Your task to perform on an android device: turn off wifi Image 0: 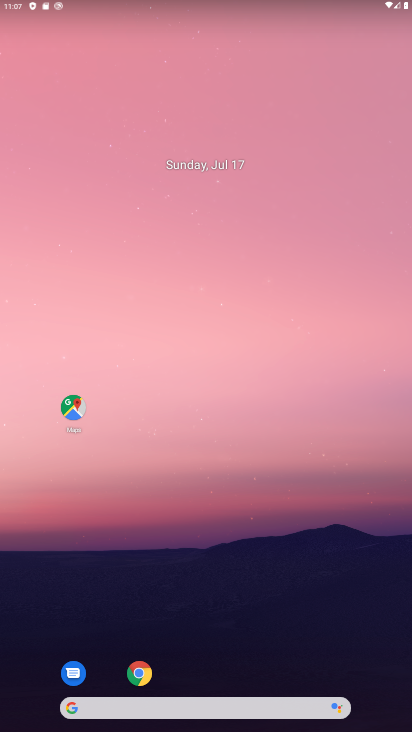
Step 0: drag from (269, 573) to (184, 128)
Your task to perform on an android device: turn off wifi Image 1: 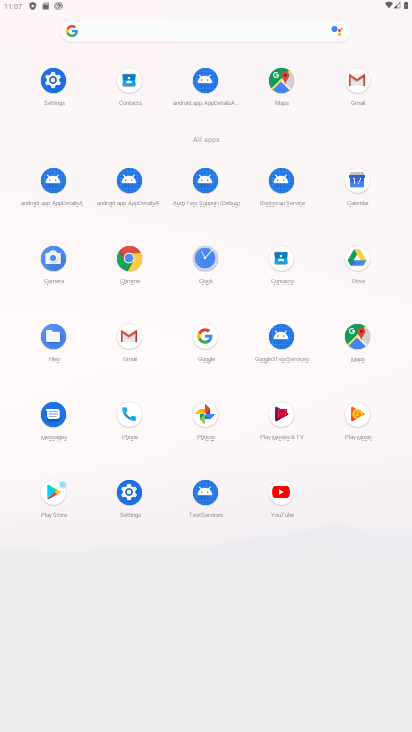
Step 1: click (47, 80)
Your task to perform on an android device: turn off wifi Image 2: 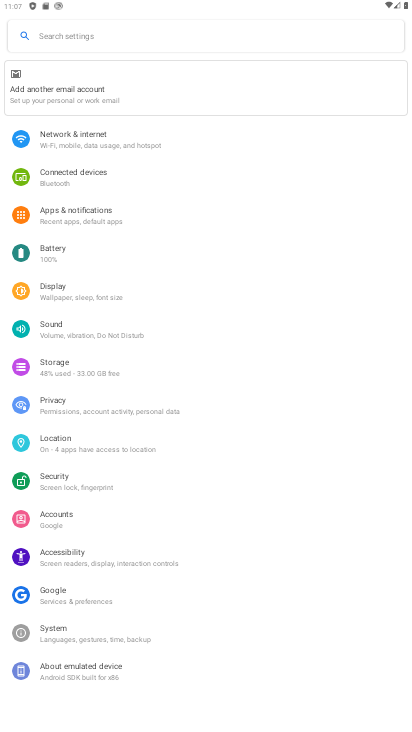
Step 2: click (89, 131)
Your task to perform on an android device: turn off wifi Image 3: 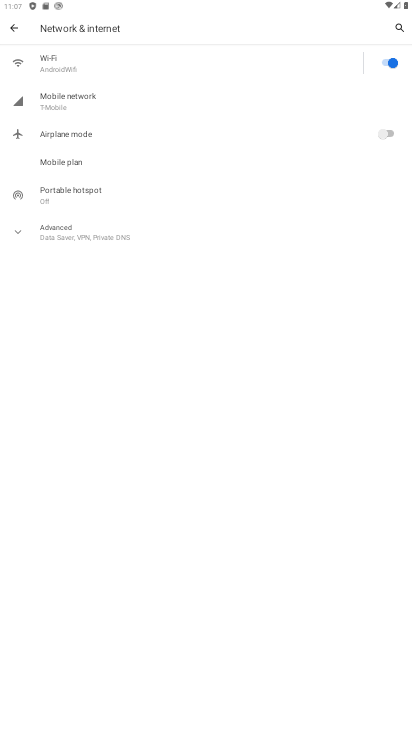
Step 3: click (387, 65)
Your task to perform on an android device: turn off wifi Image 4: 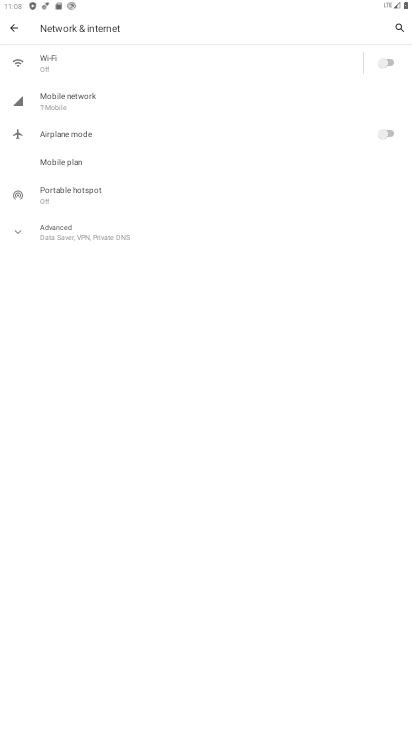
Step 4: task complete